Your task to perform on an android device: find which apps use the phone's location Image 0: 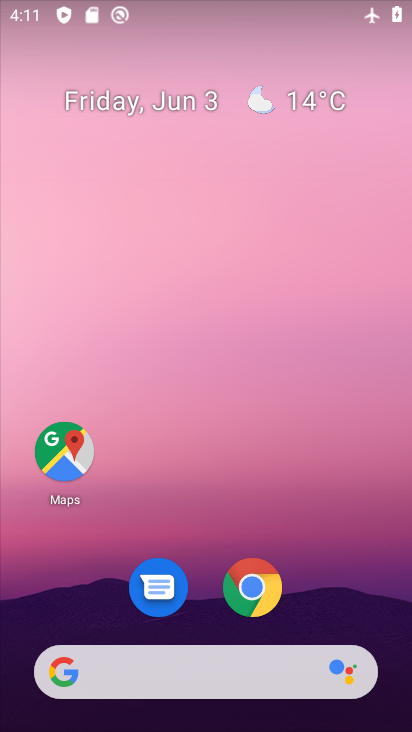
Step 0: drag from (192, 637) to (189, 277)
Your task to perform on an android device: find which apps use the phone's location Image 1: 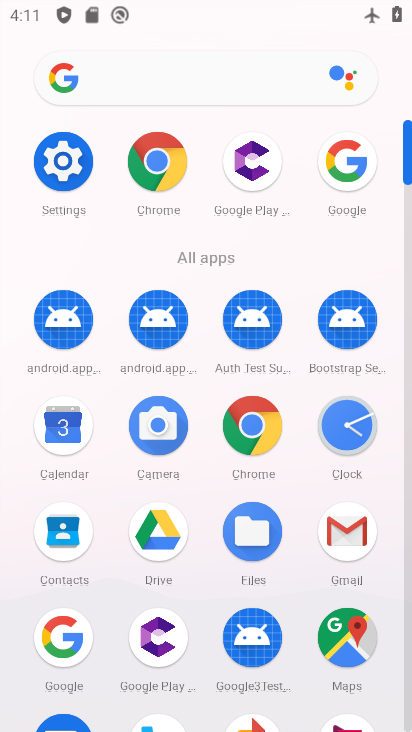
Step 1: click (58, 171)
Your task to perform on an android device: find which apps use the phone's location Image 2: 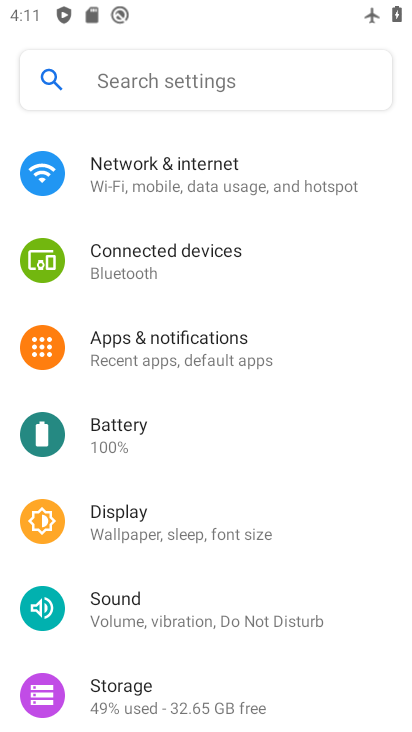
Step 2: drag from (131, 676) to (101, 331)
Your task to perform on an android device: find which apps use the phone's location Image 3: 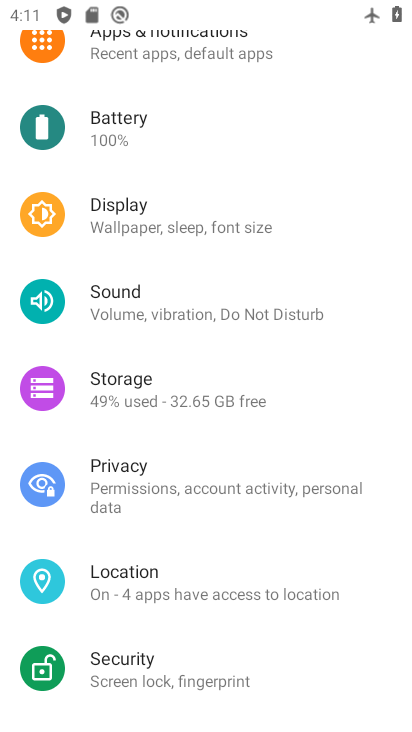
Step 3: click (124, 585)
Your task to perform on an android device: find which apps use the phone's location Image 4: 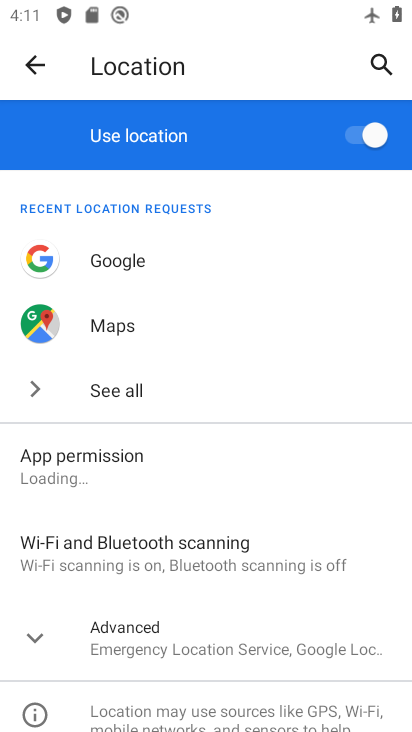
Step 4: click (142, 630)
Your task to perform on an android device: find which apps use the phone's location Image 5: 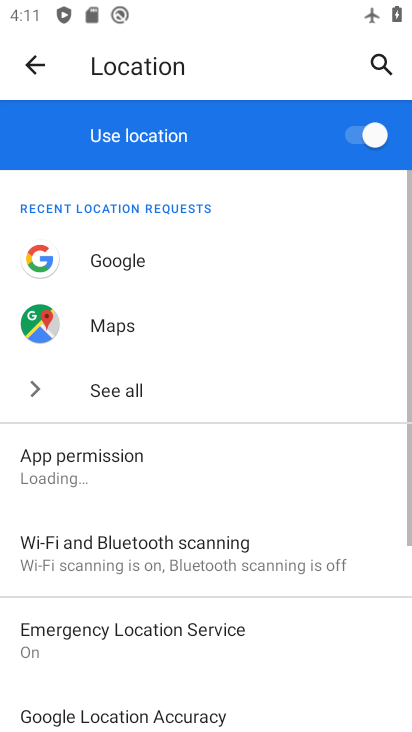
Step 5: task complete